Your task to perform on an android device: Open the stopwatch Image 0: 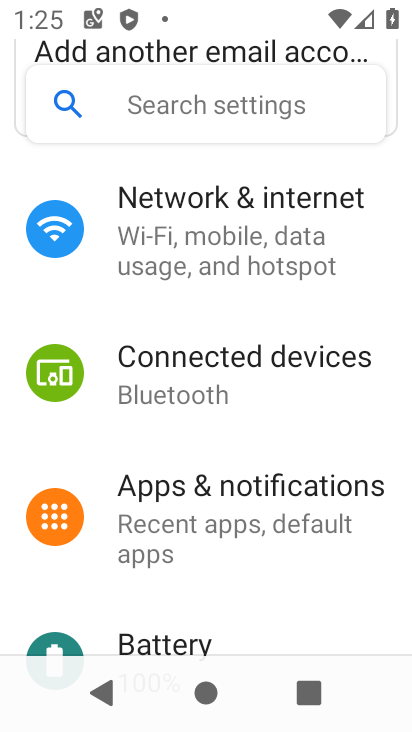
Step 0: drag from (256, 594) to (315, 365)
Your task to perform on an android device: Open the stopwatch Image 1: 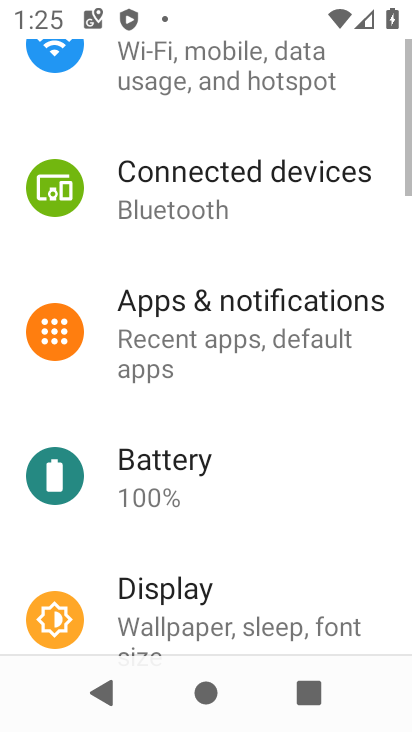
Step 1: press home button
Your task to perform on an android device: Open the stopwatch Image 2: 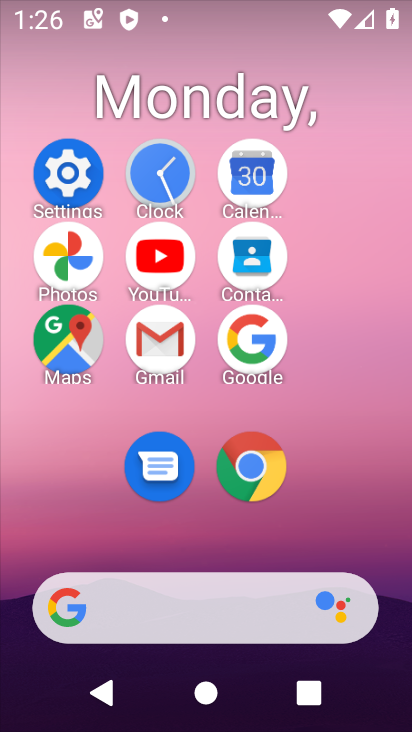
Step 2: click (180, 181)
Your task to perform on an android device: Open the stopwatch Image 3: 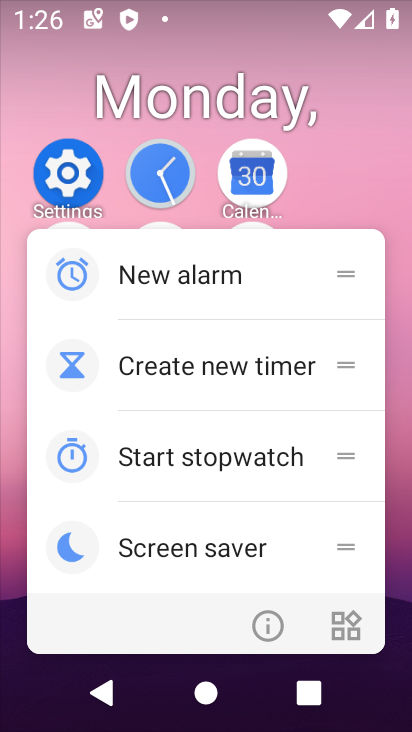
Step 3: click (176, 180)
Your task to perform on an android device: Open the stopwatch Image 4: 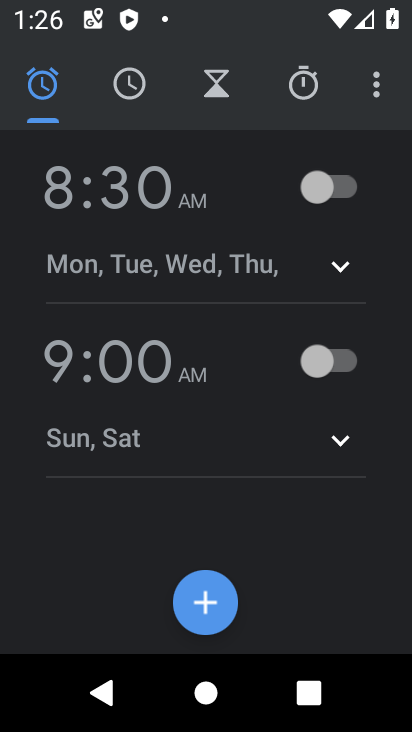
Step 4: click (316, 87)
Your task to perform on an android device: Open the stopwatch Image 5: 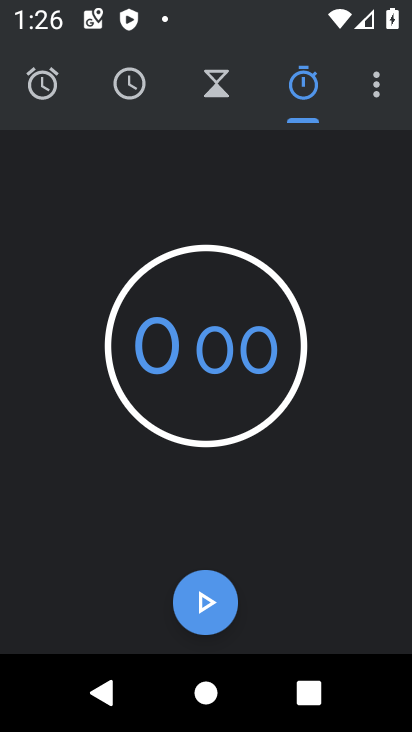
Step 5: task complete